Your task to perform on an android device: Open Reddit.com Image 0: 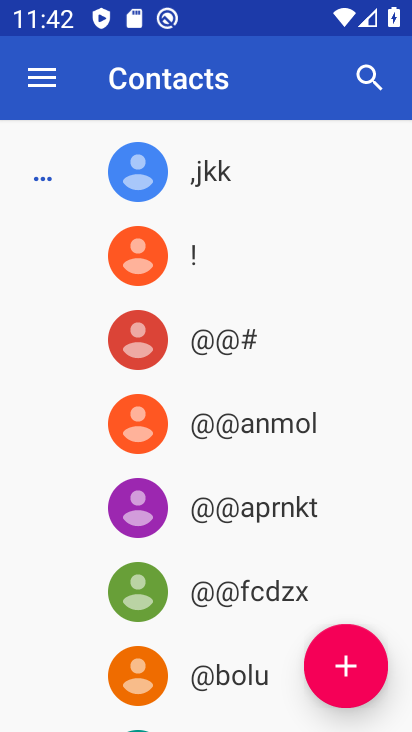
Step 0: press home button
Your task to perform on an android device: Open Reddit.com Image 1: 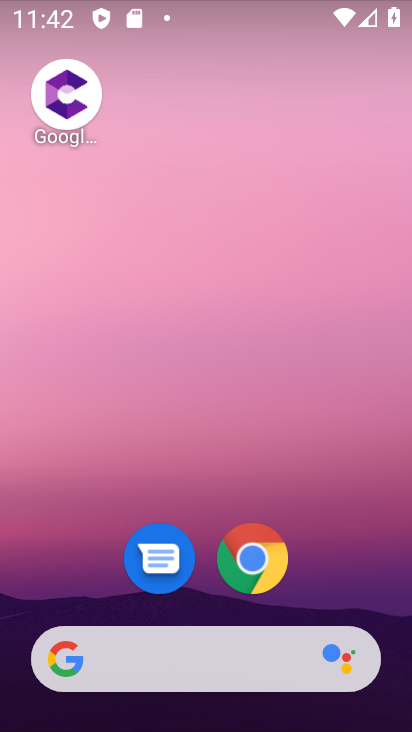
Step 1: drag from (282, 589) to (382, 93)
Your task to perform on an android device: Open Reddit.com Image 2: 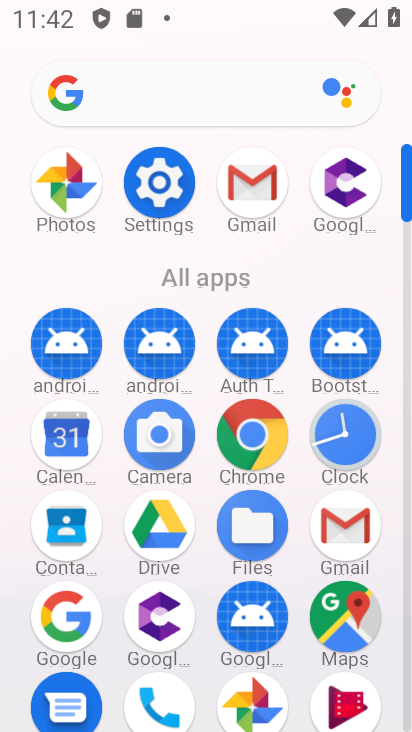
Step 2: click (266, 433)
Your task to perform on an android device: Open Reddit.com Image 3: 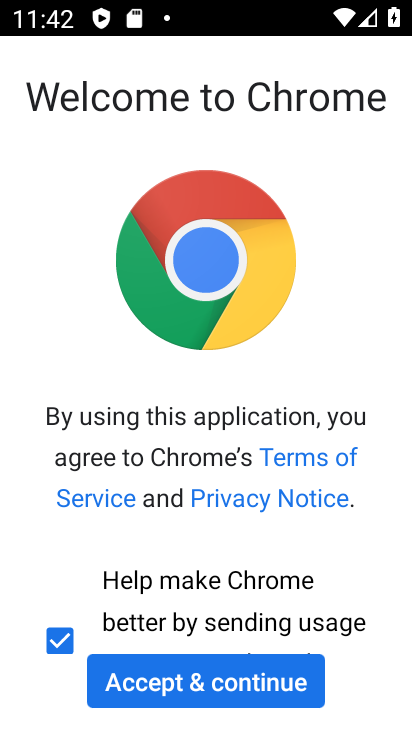
Step 3: click (266, 689)
Your task to perform on an android device: Open Reddit.com Image 4: 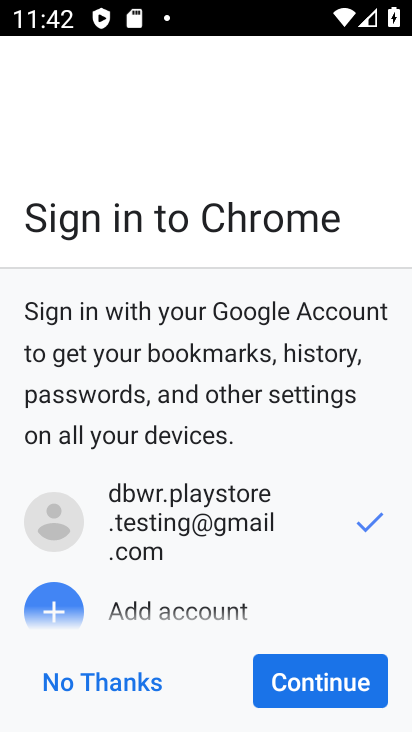
Step 4: click (348, 711)
Your task to perform on an android device: Open Reddit.com Image 5: 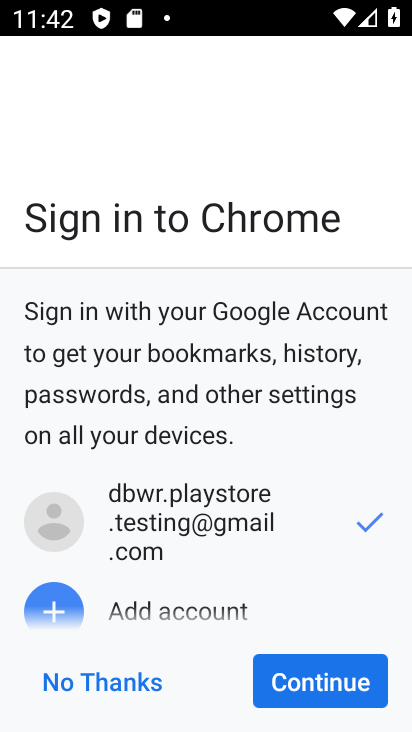
Step 5: click (338, 683)
Your task to perform on an android device: Open Reddit.com Image 6: 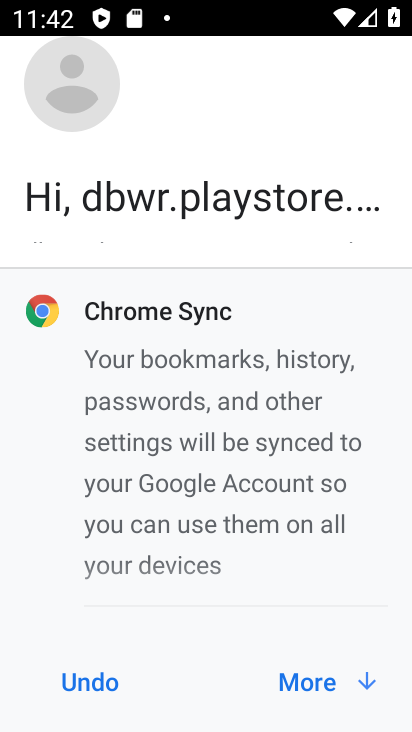
Step 6: click (321, 692)
Your task to perform on an android device: Open Reddit.com Image 7: 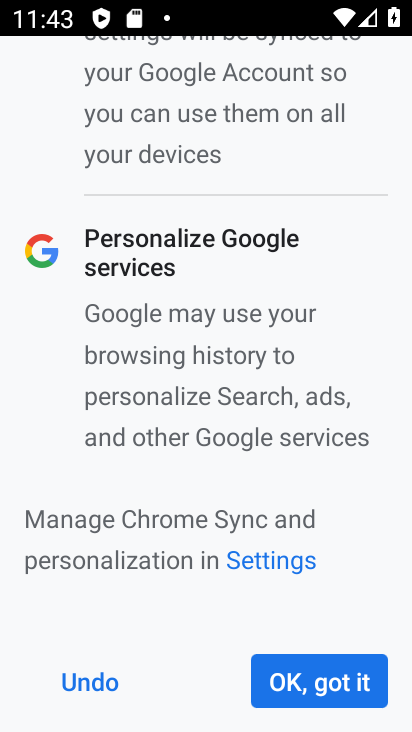
Step 7: click (349, 706)
Your task to perform on an android device: Open Reddit.com Image 8: 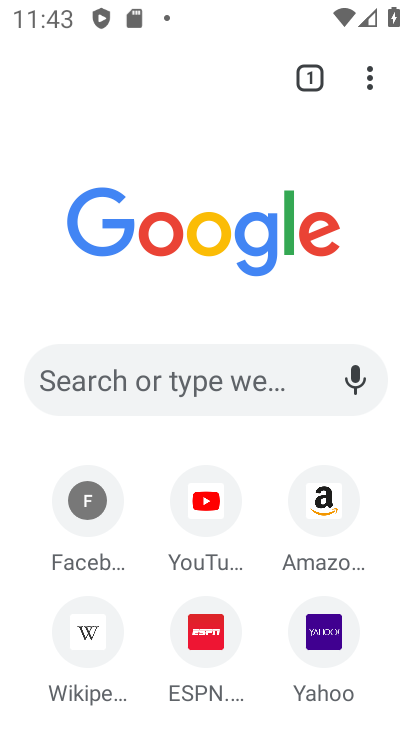
Step 8: click (228, 381)
Your task to perform on an android device: Open Reddit.com Image 9: 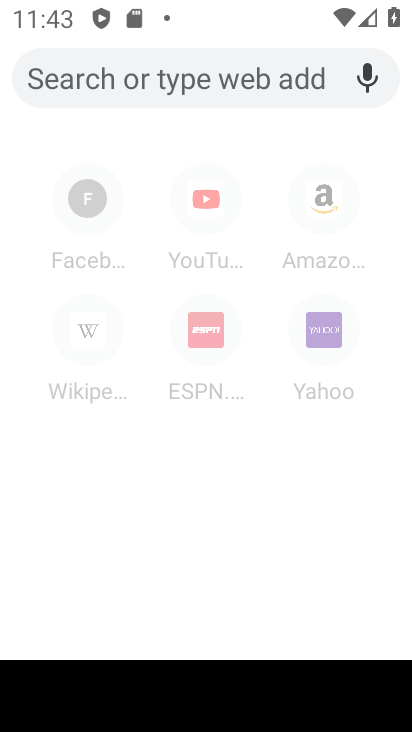
Step 9: type "reddit"
Your task to perform on an android device: Open Reddit.com Image 10: 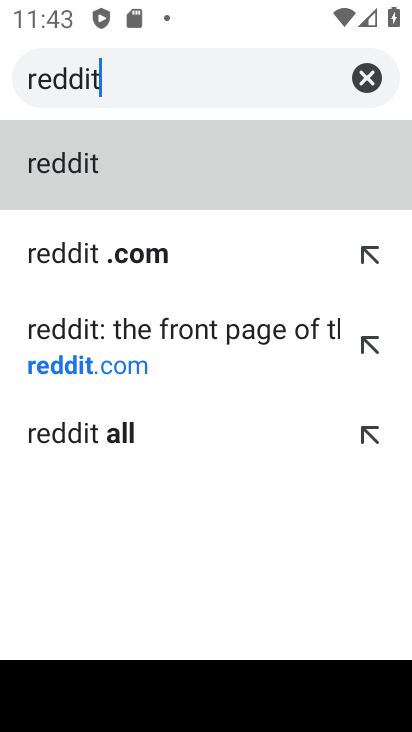
Step 10: click (196, 356)
Your task to perform on an android device: Open Reddit.com Image 11: 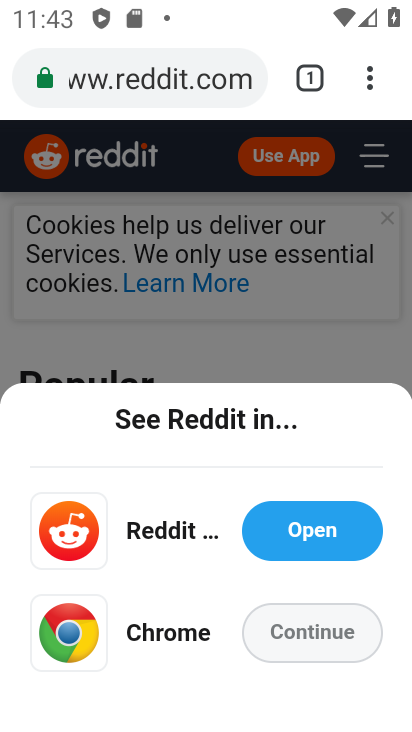
Step 11: click (309, 642)
Your task to perform on an android device: Open Reddit.com Image 12: 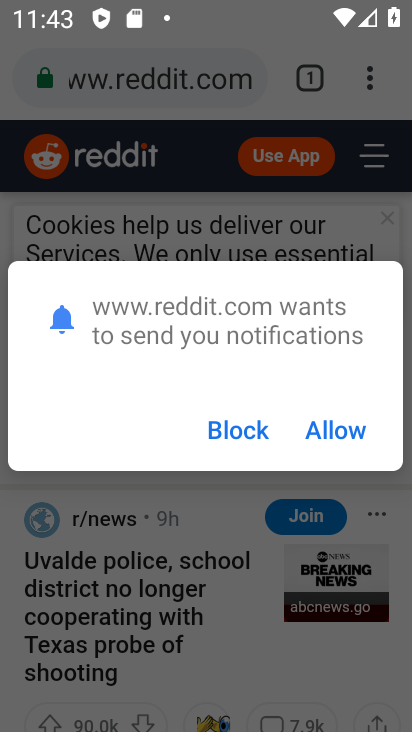
Step 12: task complete